Your task to perform on an android device: toggle show notifications on the lock screen Image 0: 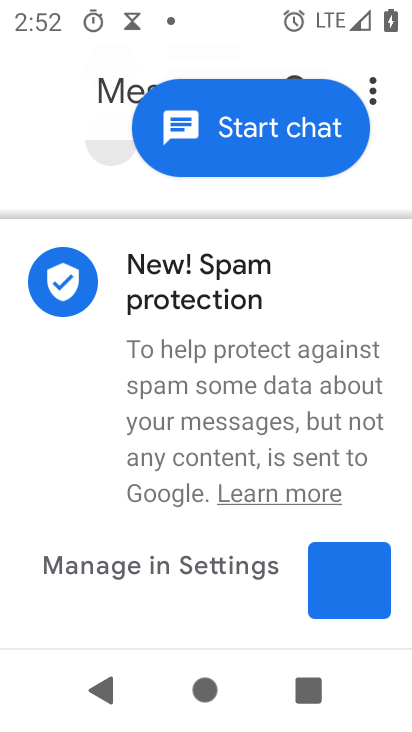
Step 0: press home button
Your task to perform on an android device: toggle show notifications on the lock screen Image 1: 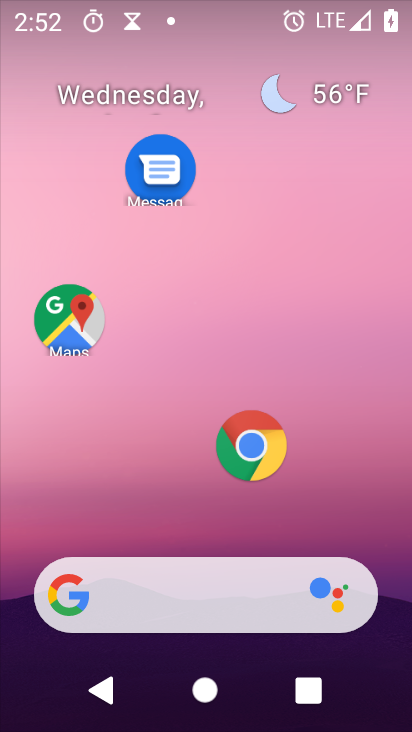
Step 1: drag from (180, 547) to (196, 159)
Your task to perform on an android device: toggle show notifications on the lock screen Image 2: 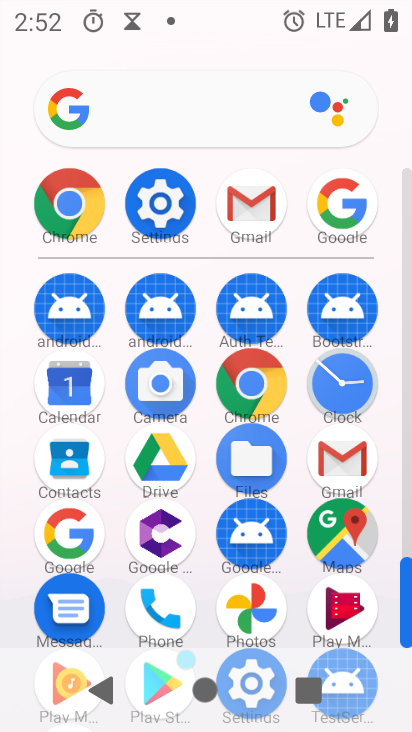
Step 2: drag from (203, 263) to (207, 110)
Your task to perform on an android device: toggle show notifications on the lock screen Image 3: 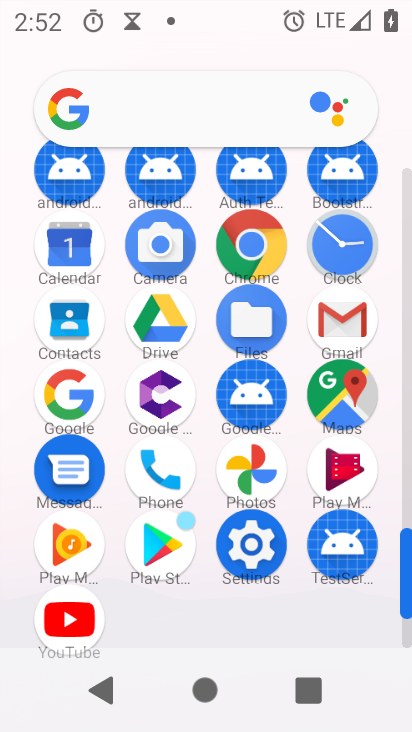
Step 3: click (260, 549)
Your task to perform on an android device: toggle show notifications on the lock screen Image 4: 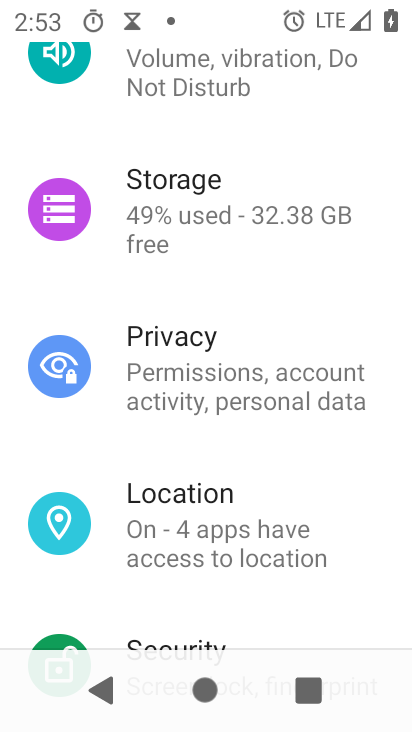
Step 4: drag from (234, 267) to (255, 550)
Your task to perform on an android device: toggle show notifications on the lock screen Image 5: 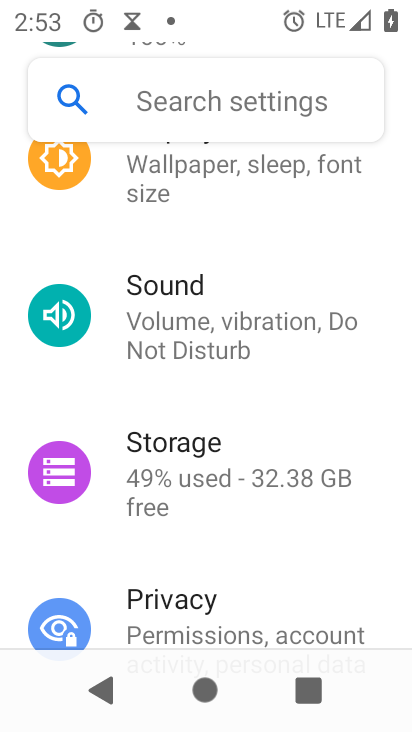
Step 5: drag from (223, 267) to (260, 583)
Your task to perform on an android device: toggle show notifications on the lock screen Image 6: 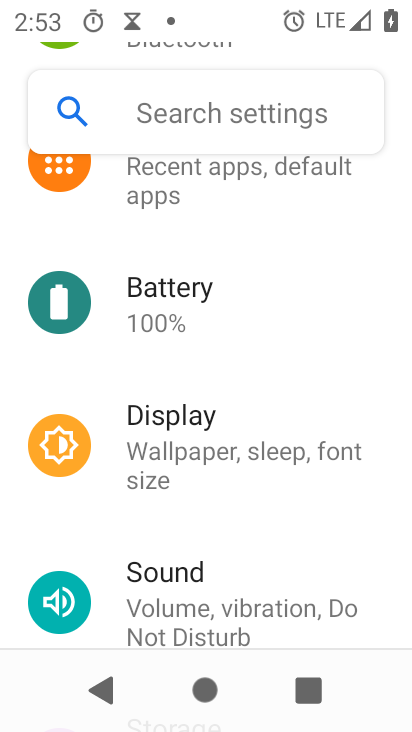
Step 6: drag from (232, 255) to (237, 642)
Your task to perform on an android device: toggle show notifications on the lock screen Image 7: 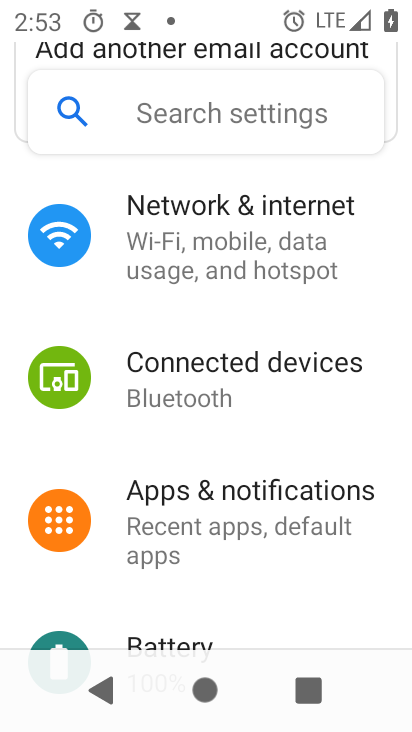
Step 7: click (203, 510)
Your task to perform on an android device: toggle show notifications on the lock screen Image 8: 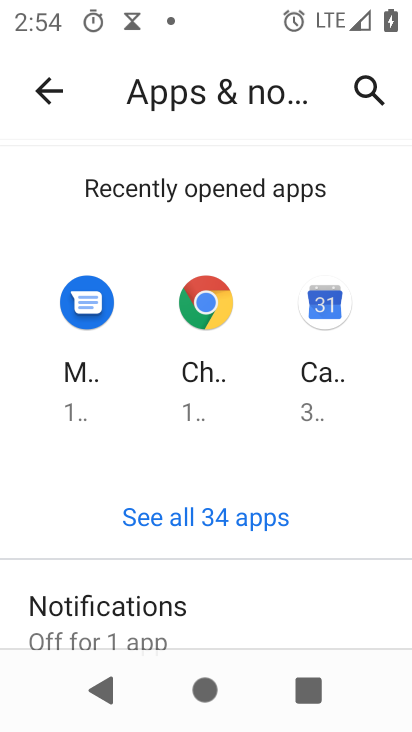
Step 8: drag from (164, 606) to (149, 360)
Your task to perform on an android device: toggle show notifications on the lock screen Image 9: 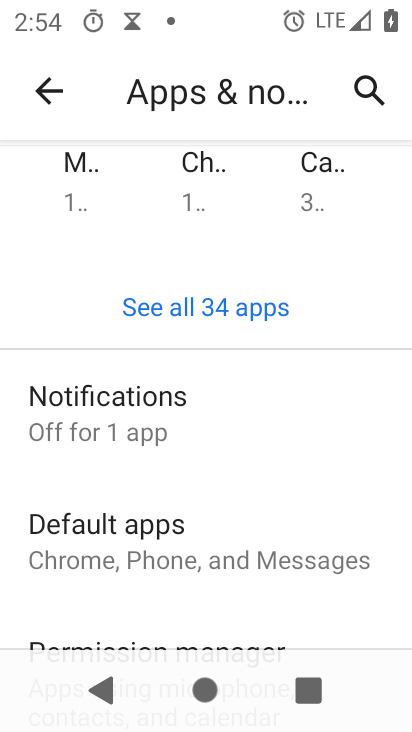
Step 9: click (151, 437)
Your task to perform on an android device: toggle show notifications on the lock screen Image 10: 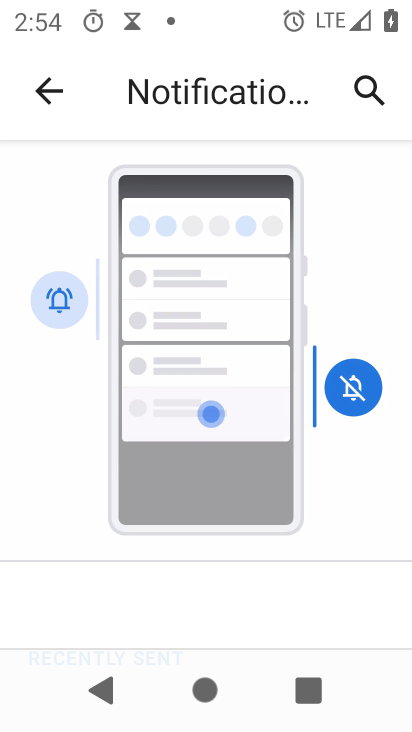
Step 10: drag from (166, 581) to (125, 231)
Your task to perform on an android device: toggle show notifications on the lock screen Image 11: 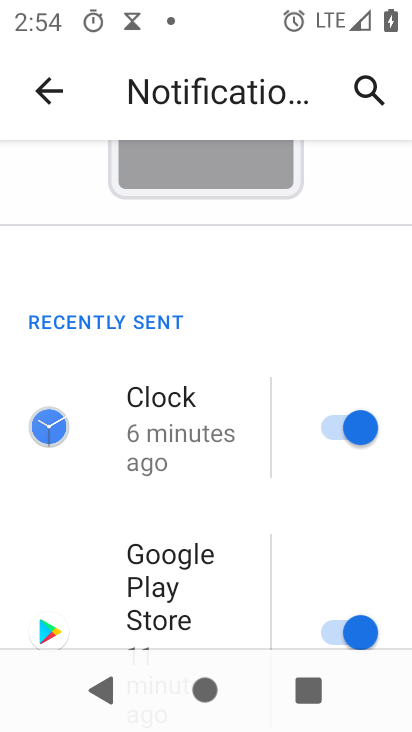
Step 11: drag from (159, 531) to (128, 151)
Your task to perform on an android device: toggle show notifications on the lock screen Image 12: 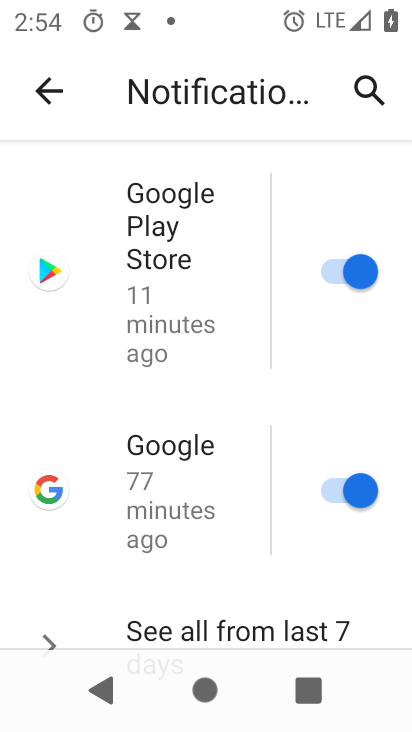
Step 12: drag from (173, 524) to (149, 185)
Your task to perform on an android device: toggle show notifications on the lock screen Image 13: 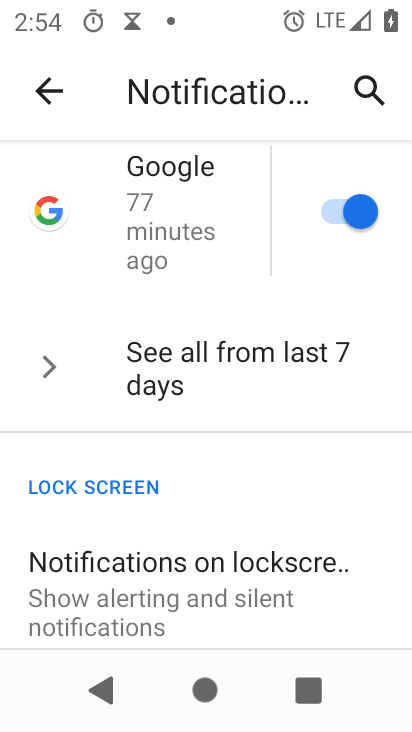
Step 13: click (172, 576)
Your task to perform on an android device: toggle show notifications on the lock screen Image 14: 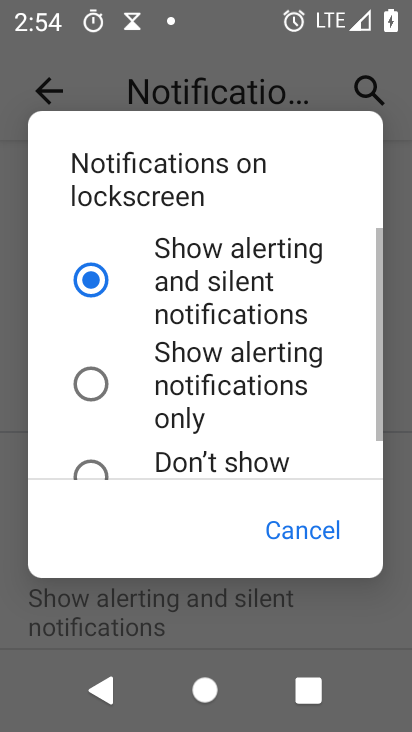
Step 14: click (222, 467)
Your task to perform on an android device: toggle show notifications on the lock screen Image 15: 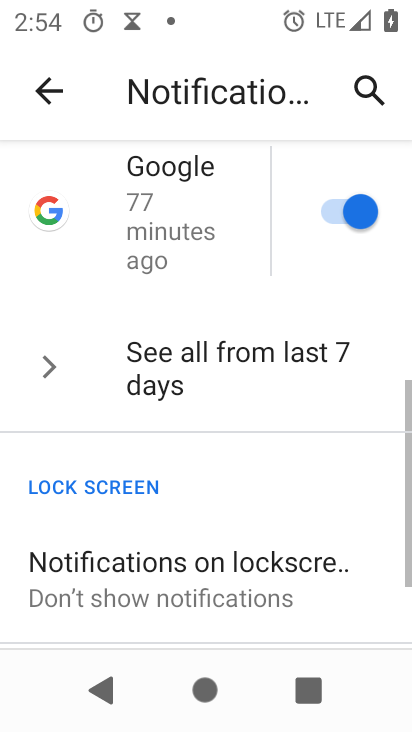
Step 15: task complete